Your task to perform on an android device: turn off priority inbox in the gmail app Image 0: 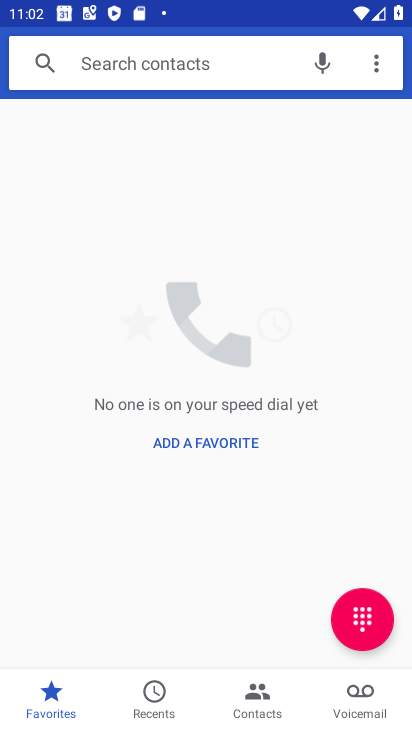
Step 0: press home button
Your task to perform on an android device: turn off priority inbox in the gmail app Image 1: 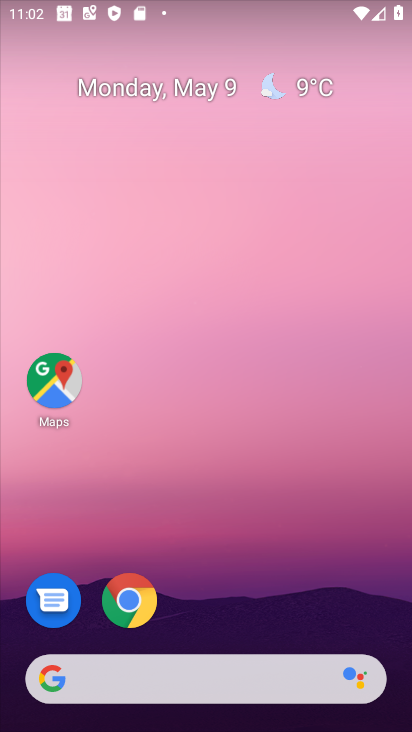
Step 1: drag from (289, 384) to (294, 196)
Your task to perform on an android device: turn off priority inbox in the gmail app Image 2: 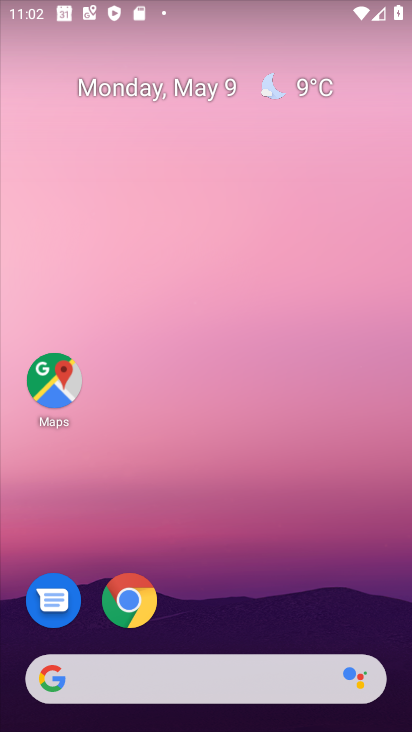
Step 2: drag from (319, 627) to (304, 266)
Your task to perform on an android device: turn off priority inbox in the gmail app Image 3: 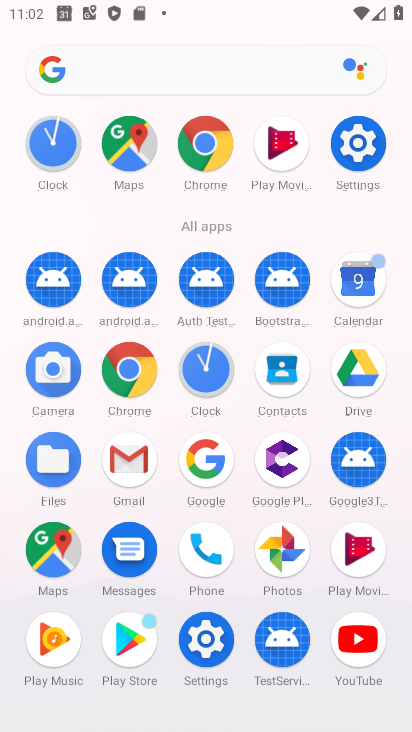
Step 3: click (129, 460)
Your task to perform on an android device: turn off priority inbox in the gmail app Image 4: 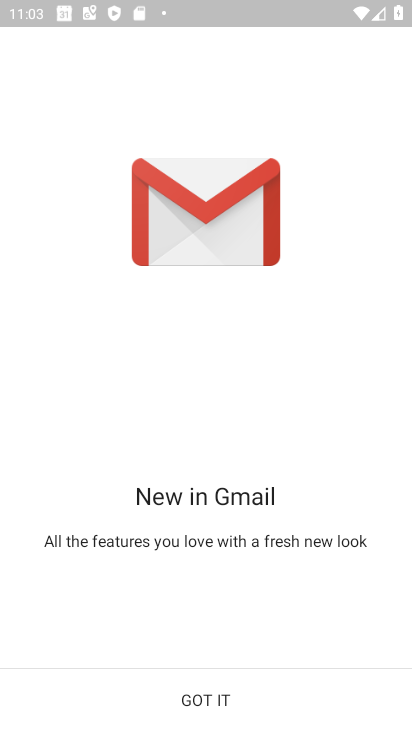
Step 4: click (229, 692)
Your task to perform on an android device: turn off priority inbox in the gmail app Image 5: 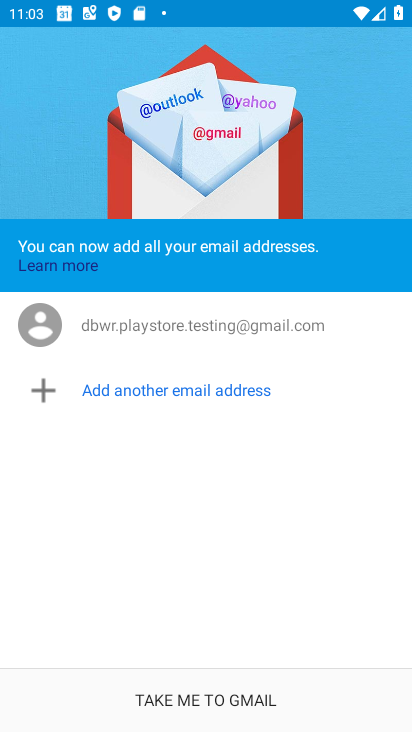
Step 5: click (226, 689)
Your task to perform on an android device: turn off priority inbox in the gmail app Image 6: 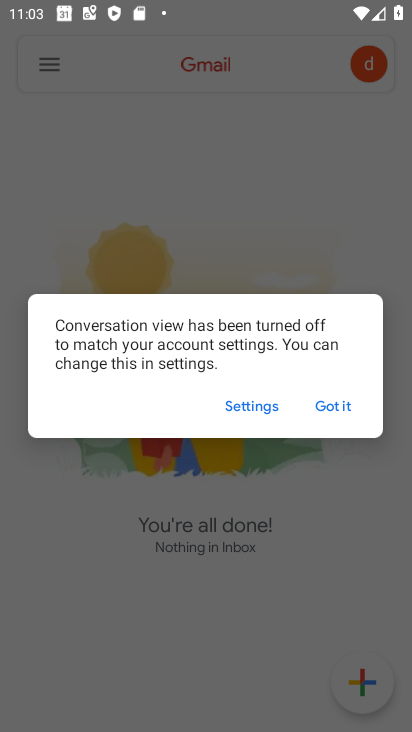
Step 6: click (340, 405)
Your task to perform on an android device: turn off priority inbox in the gmail app Image 7: 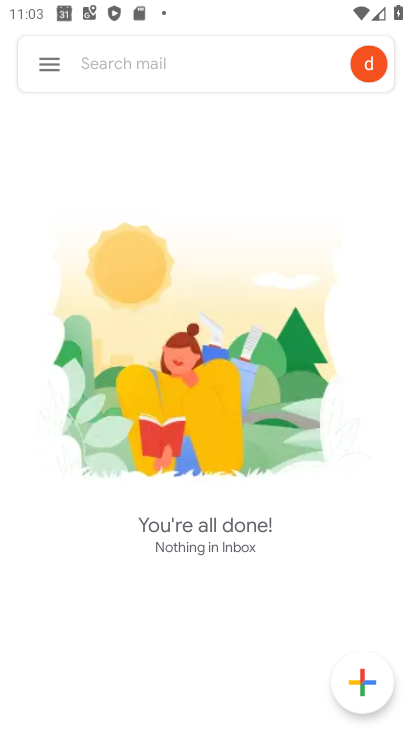
Step 7: click (46, 62)
Your task to perform on an android device: turn off priority inbox in the gmail app Image 8: 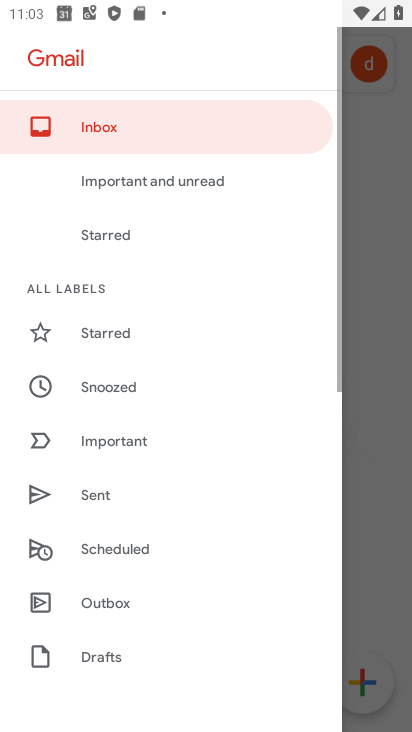
Step 8: drag from (142, 607) to (178, 304)
Your task to perform on an android device: turn off priority inbox in the gmail app Image 9: 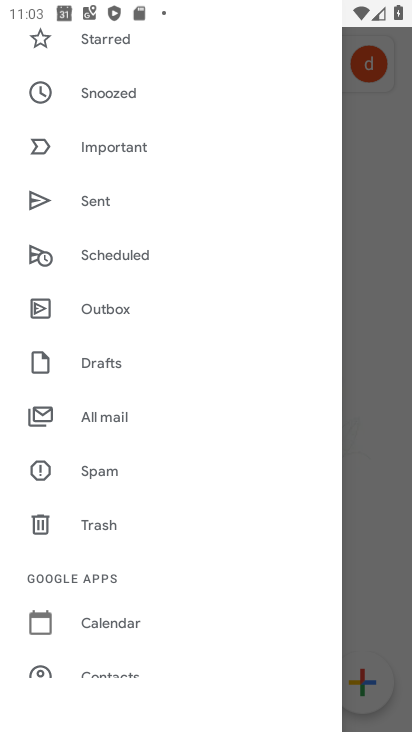
Step 9: drag from (147, 646) to (178, 340)
Your task to perform on an android device: turn off priority inbox in the gmail app Image 10: 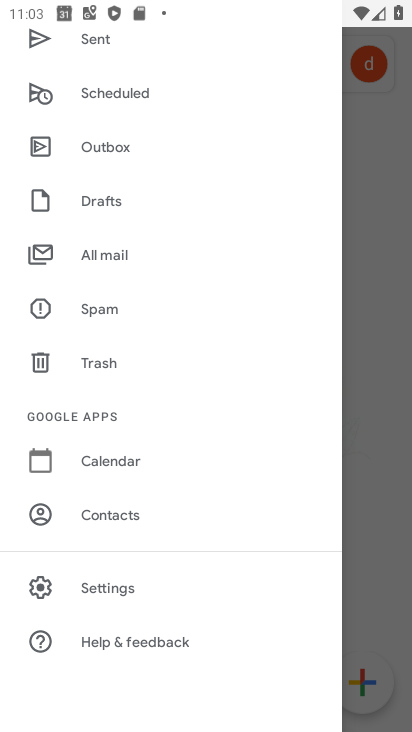
Step 10: click (133, 575)
Your task to perform on an android device: turn off priority inbox in the gmail app Image 11: 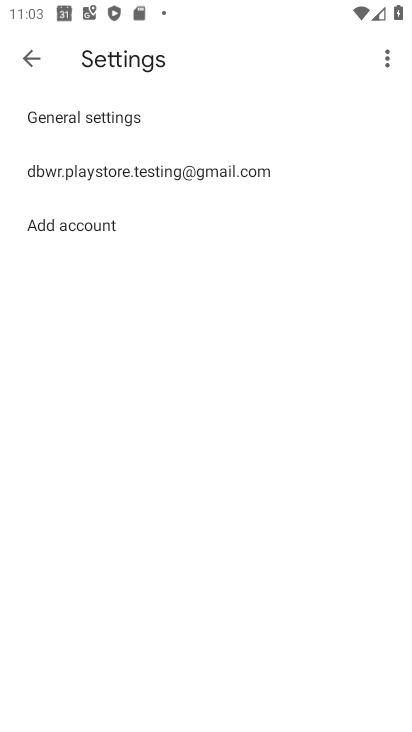
Step 11: click (181, 178)
Your task to perform on an android device: turn off priority inbox in the gmail app Image 12: 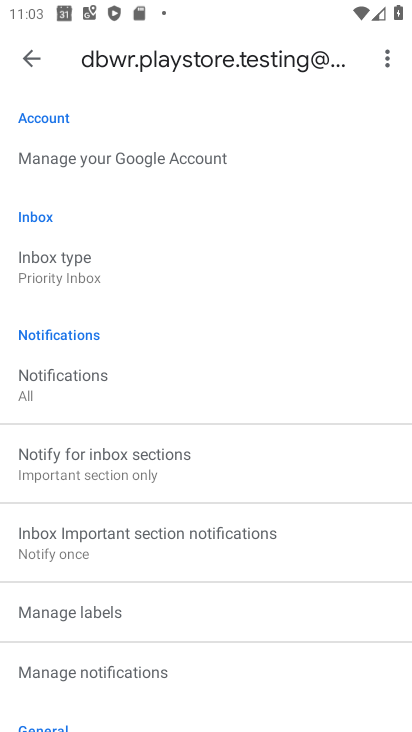
Step 12: drag from (187, 618) to (208, 535)
Your task to perform on an android device: turn off priority inbox in the gmail app Image 13: 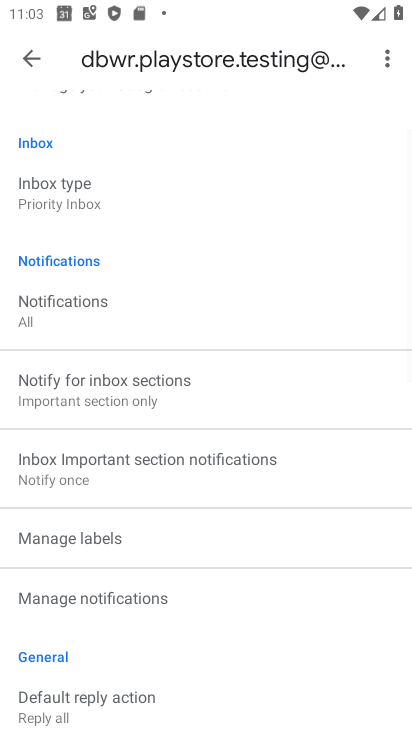
Step 13: click (108, 197)
Your task to perform on an android device: turn off priority inbox in the gmail app Image 14: 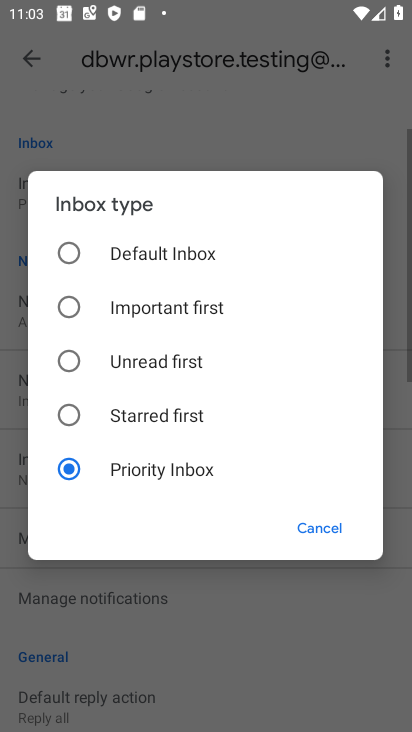
Step 14: click (141, 241)
Your task to perform on an android device: turn off priority inbox in the gmail app Image 15: 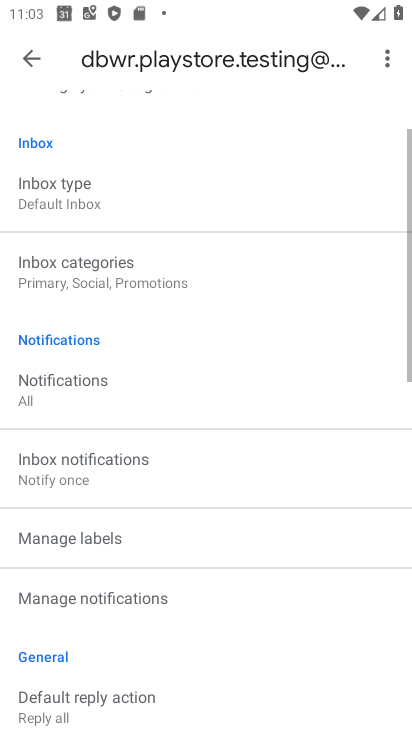
Step 15: task complete